Your task to perform on an android device: turn off sleep mode Image 0: 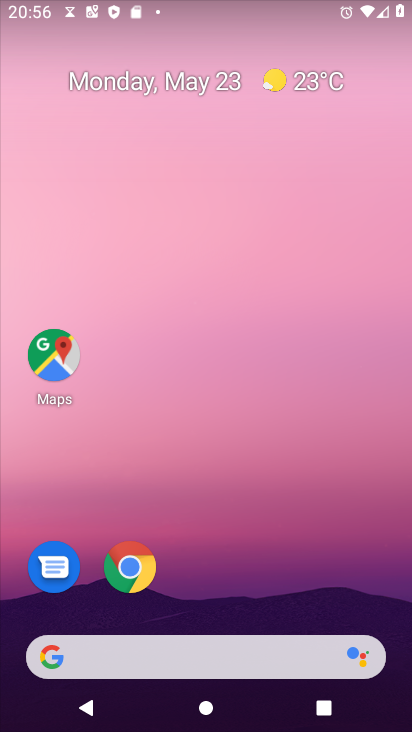
Step 0: drag from (281, 570) to (280, 164)
Your task to perform on an android device: turn off sleep mode Image 1: 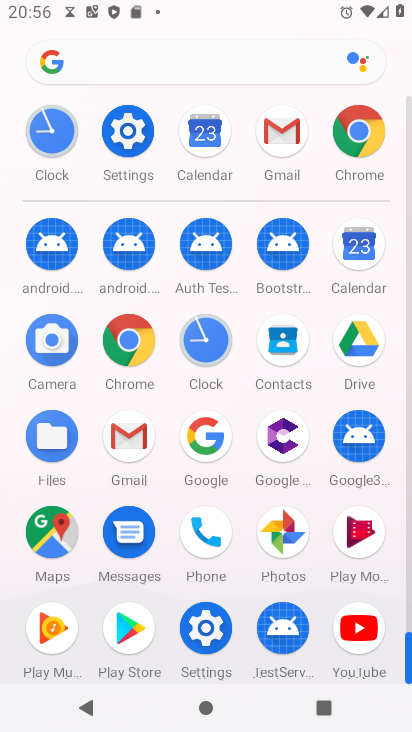
Step 1: click (116, 134)
Your task to perform on an android device: turn off sleep mode Image 2: 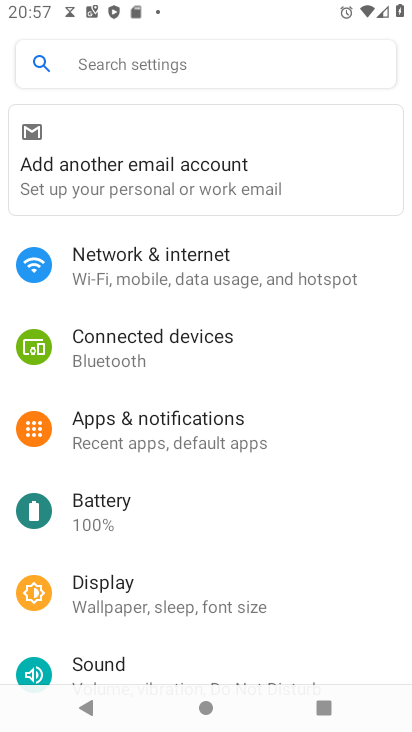
Step 2: task complete